Your task to perform on an android device: Open privacy settings Image 0: 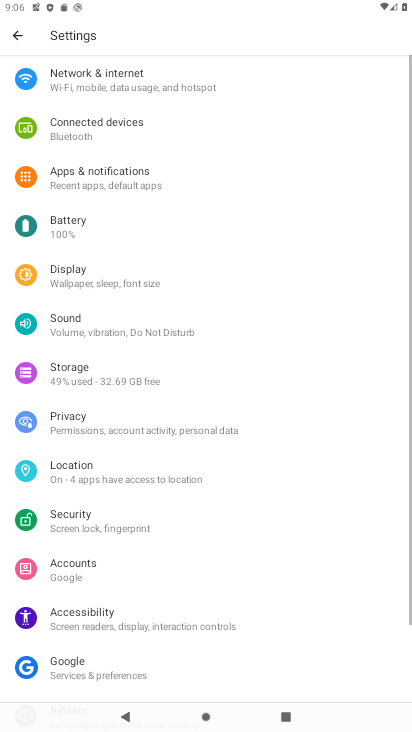
Step 0: click (69, 419)
Your task to perform on an android device: Open privacy settings Image 1: 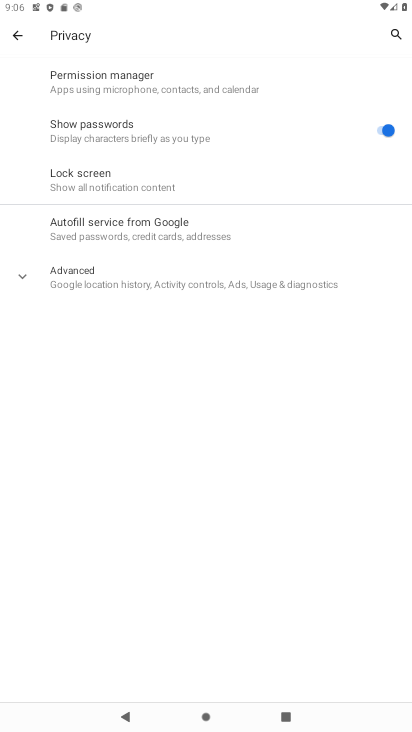
Step 1: task complete